Your task to perform on an android device: turn off improve location accuracy Image 0: 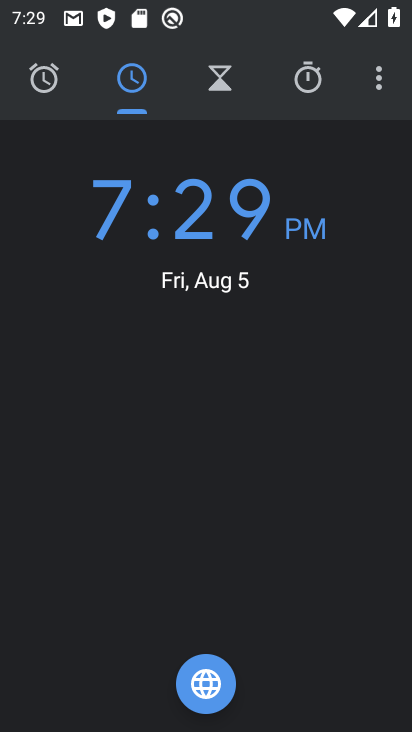
Step 0: press home button
Your task to perform on an android device: turn off improve location accuracy Image 1: 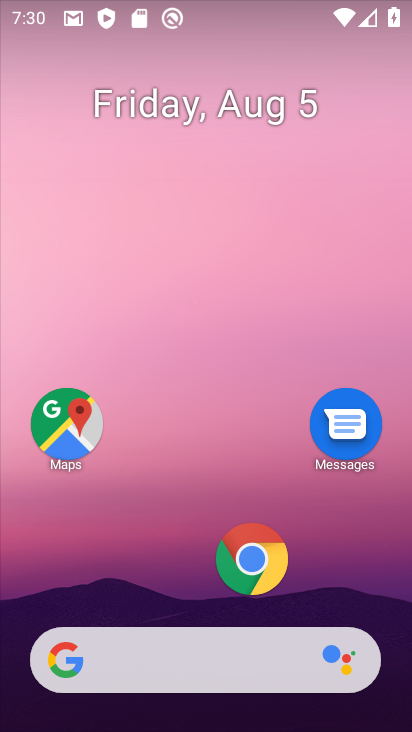
Step 1: drag from (195, 595) to (299, 10)
Your task to perform on an android device: turn off improve location accuracy Image 2: 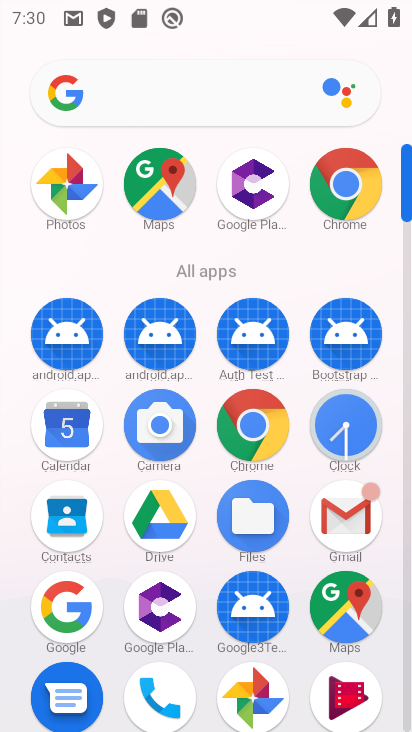
Step 2: drag from (215, 657) to (197, 188)
Your task to perform on an android device: turn off improve location accuracy Image 3: 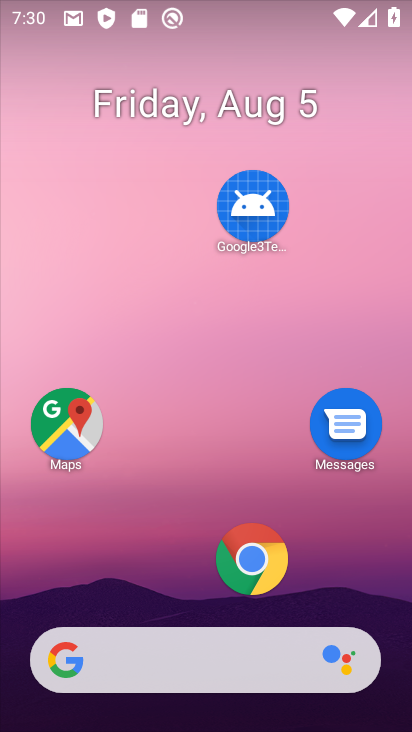
Step 3: drag from (159, 614) to (179, 10)
Your task to perform on an android device: turn off improve location accuracy Image 4: 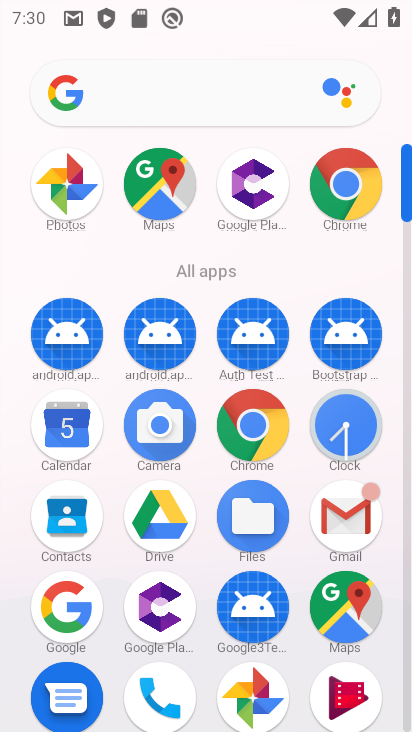
Step 4: drag from (202, 491) to (188, 69)
Your task to perform on an android device: turn off improve location accuracy Image 5: 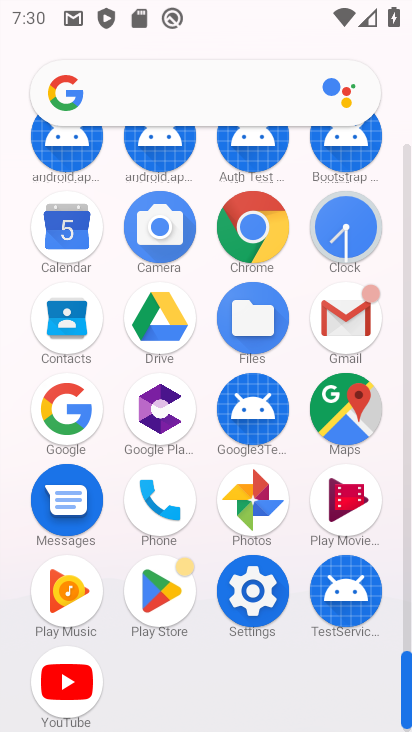
Step 5: click (252, 606)
Your task to perform on an android device: turn off improve location accuracy Image 6: 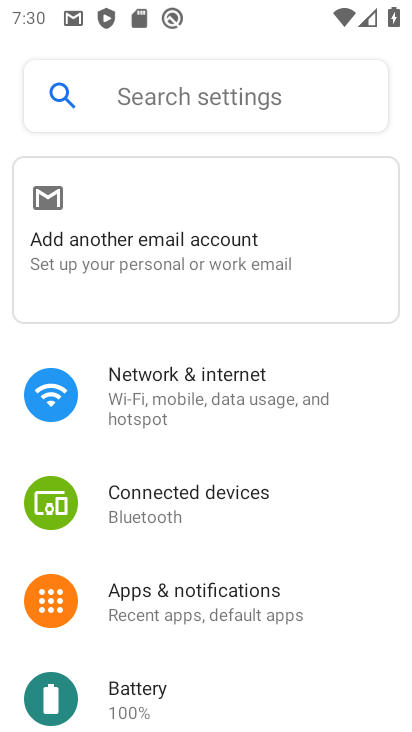
Step 6: drag from (346, 599) to (309, 250)
Your task to perform on an android device: turn off improve location accuracy Image 7: 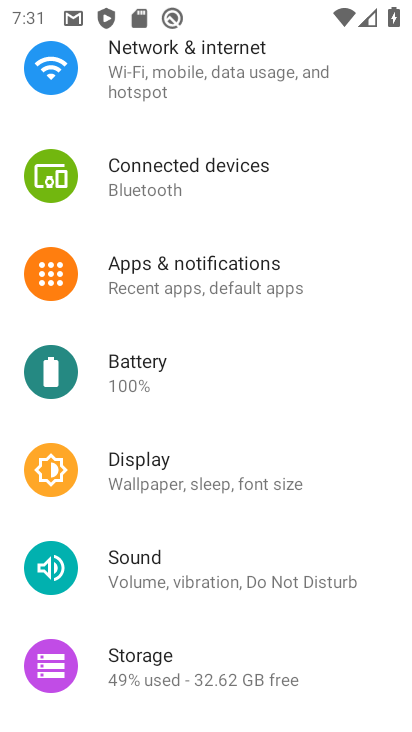
Step 7: drag from (175, 587) to (186, 90)
Your task to perform on an android device: turn off improve location accuracy Image 8: 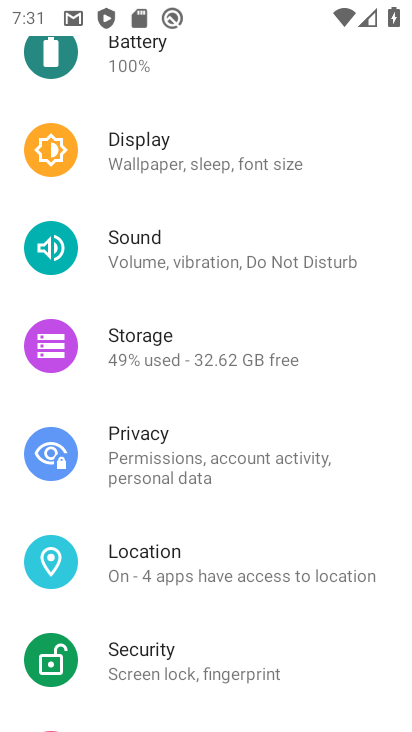
Step 8: click (125, 556)
Your task to perform on an android device: turn off improve location accuracy Image 9: 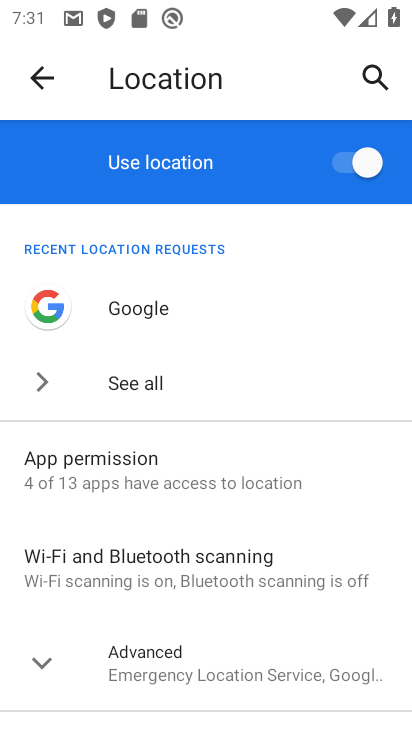
Step 9: click (172, 666)
Your task to perform on an android device: turn off improve location accuracy Image 10: 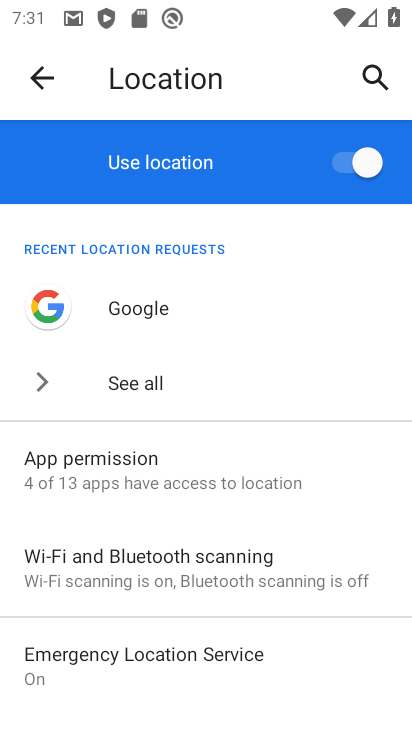
Step 10: drag from (172, 666) to (161, 201)
Your task to perform on an android device: turn off improve location accuracy Image 11: 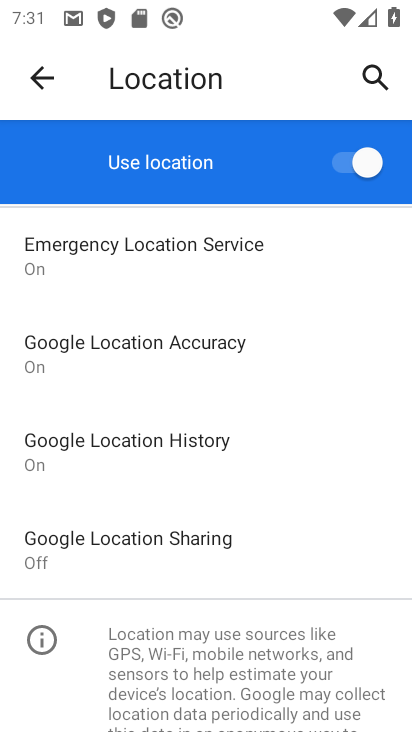
Step 11: click (191, 352)
Your task to perform on an android device: turn off improve location accuracy Image 12: 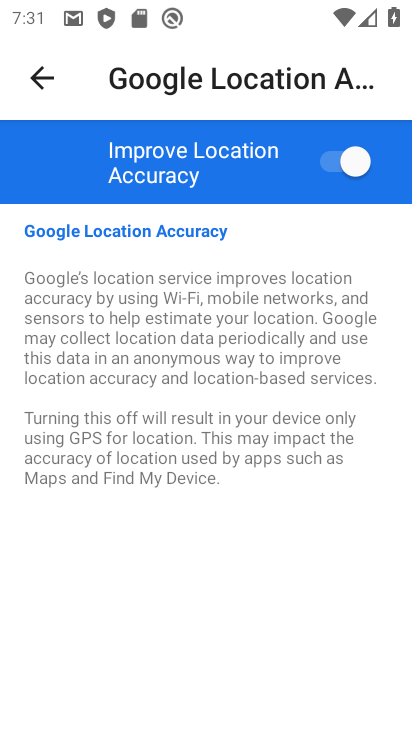
Step 12: click (334, 164)
Your task to perform on an android device: turn off improve location accuracy Image 13: 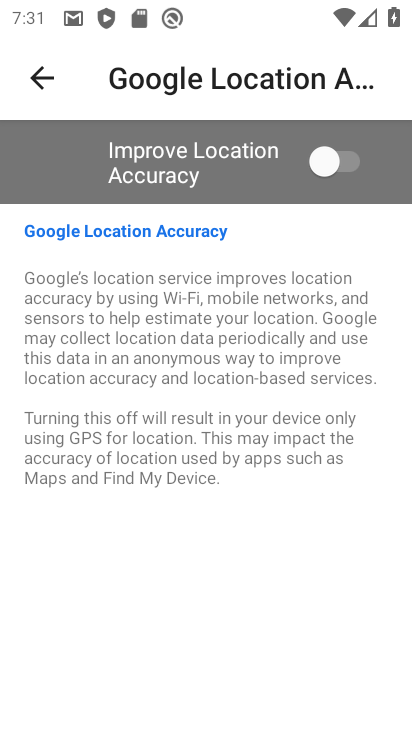
Step 13: task complete